Your task to perform on an android device: Clear all items from cart on newegg. Image 0: 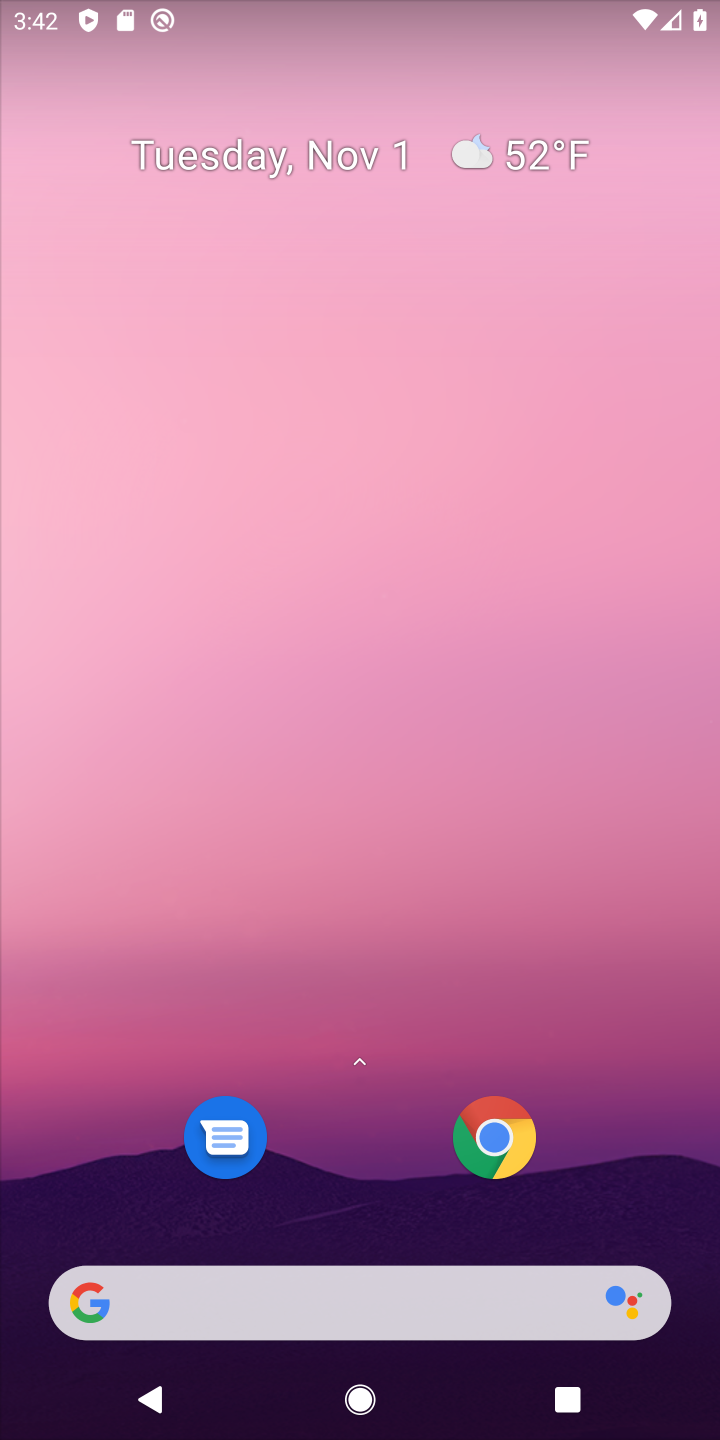
Step 0: click (441, 1278)
Your task to perform on an android device: Clear all items from cart on newegg. Image 1: 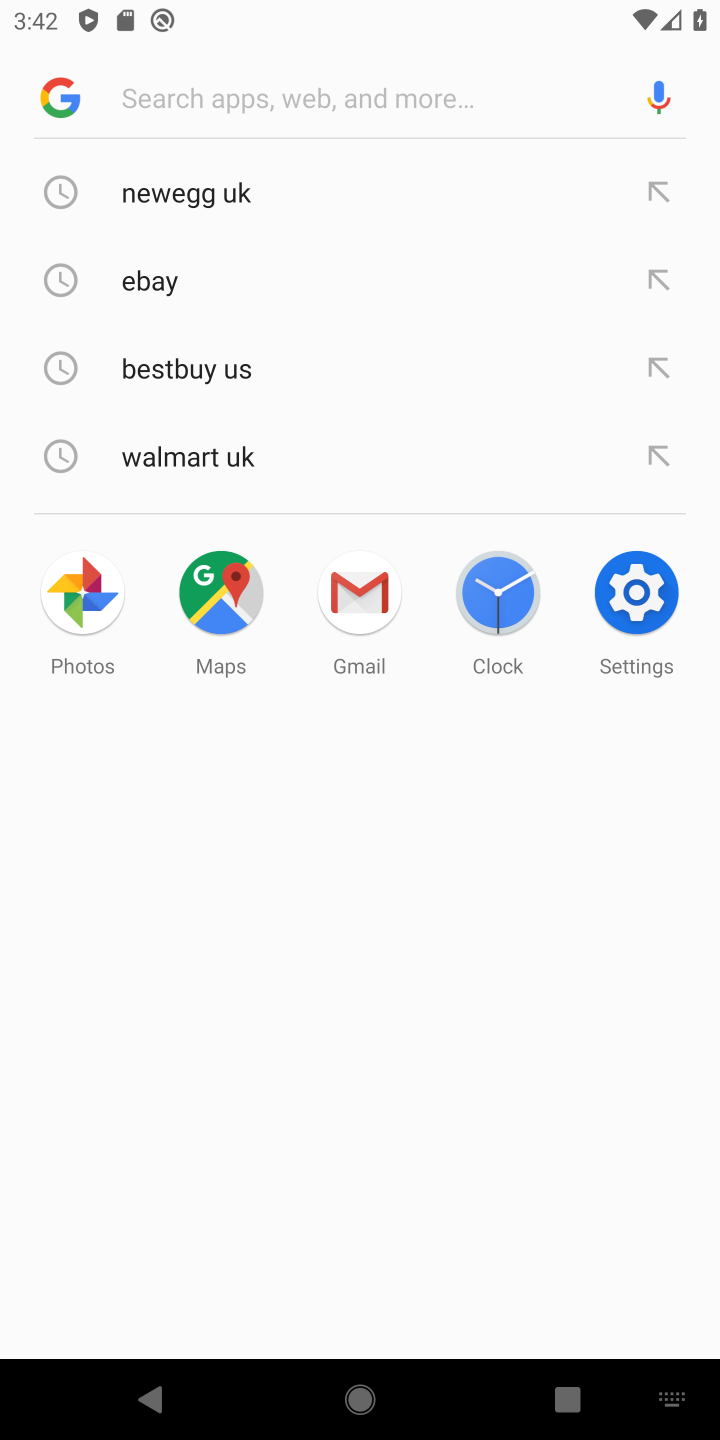
Step 1: click (230, 179)
Your task to perform on an android device: Clear all items from cart on newegg. Image 2: 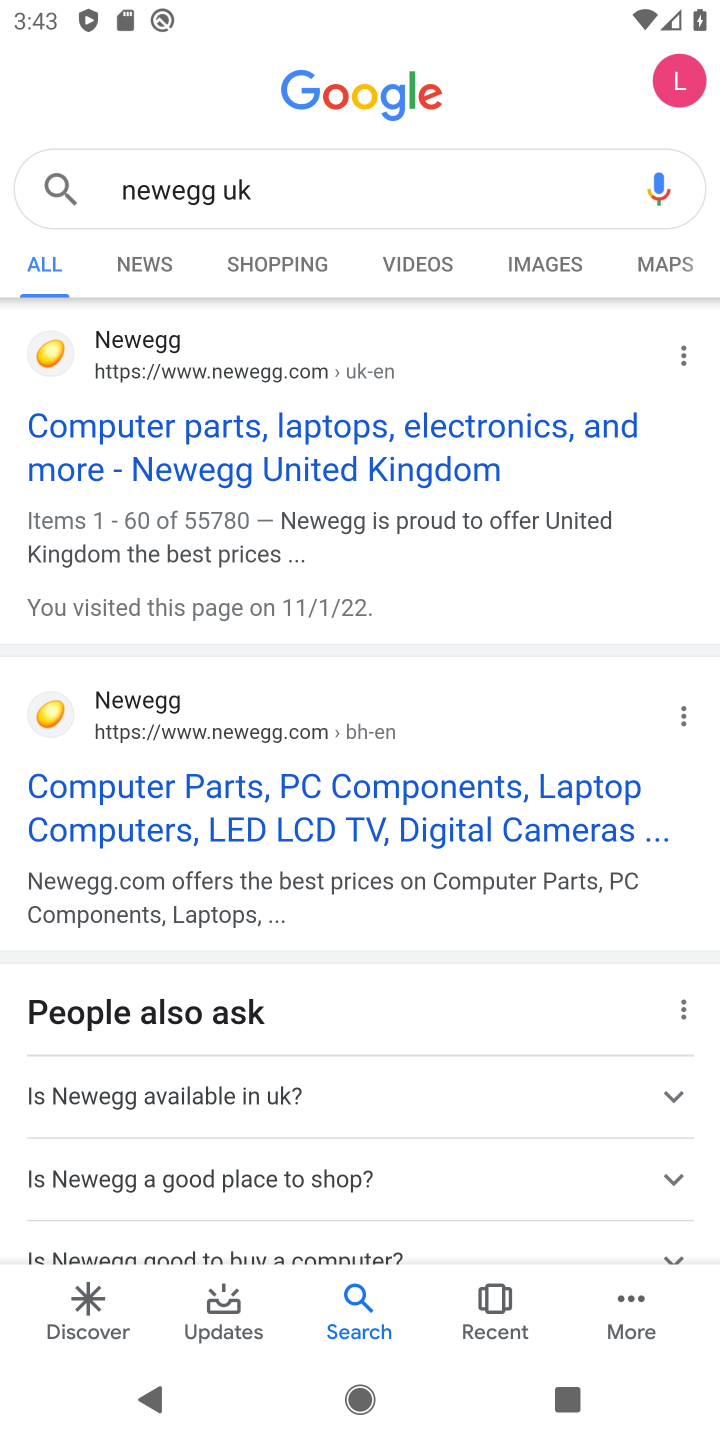
Step 2: click (264, 466)
Your task to perform on an android device: Clear all items from cart on newegg. Image 3: 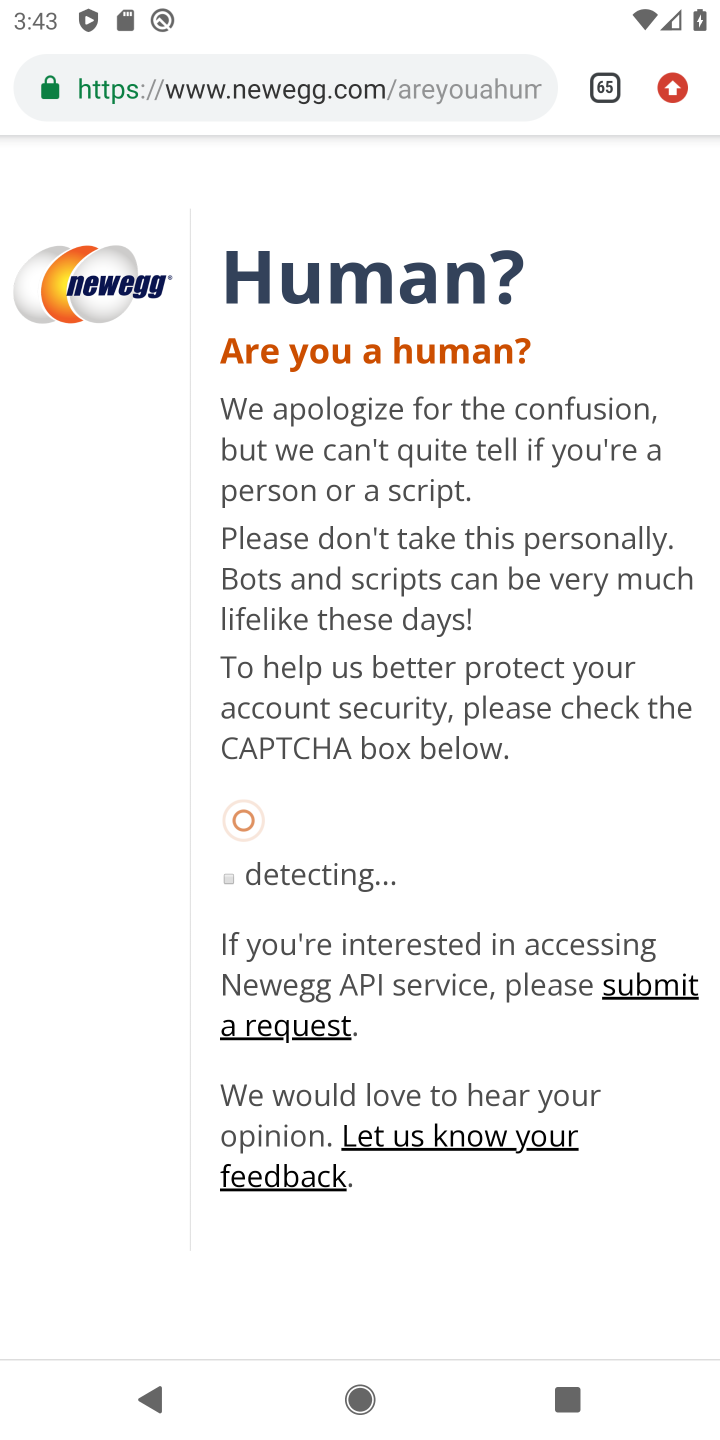
Step 3: task complete